Your task to perform on an android device: manage bookmarks in the chrome app Image 0: 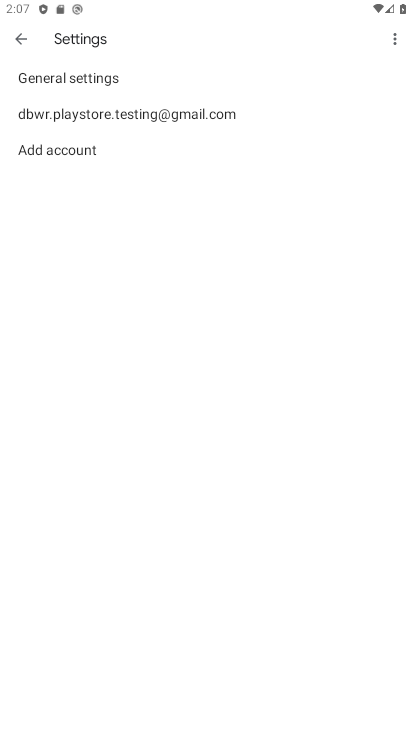
Step 0: drag from (208, 616) to (161, 83)
Your task to perform on an android device: manage bookmarks in the chrome app Image 1: 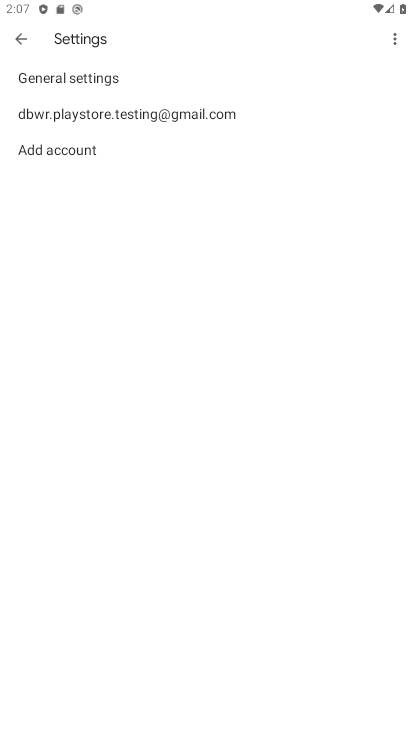
Step 1: drag from (282, 615) to (329, 153)
Your task to perform on an android device: manage bookmarks in the chrome app Image 2: 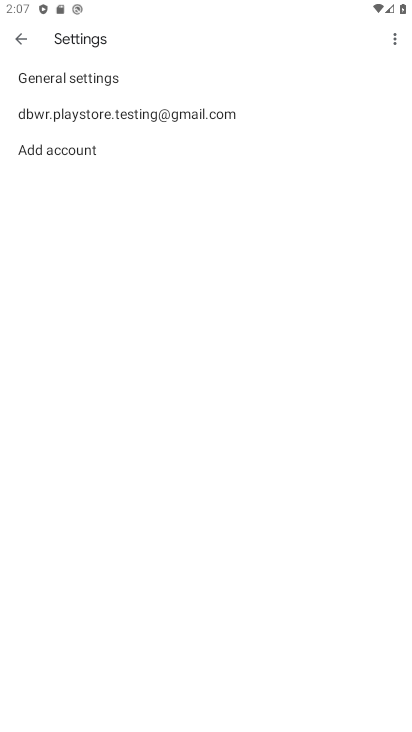
Step 2: click (99, 114)
Your task to perform on an android device: manage bookmarks in the chrome app Image 3: 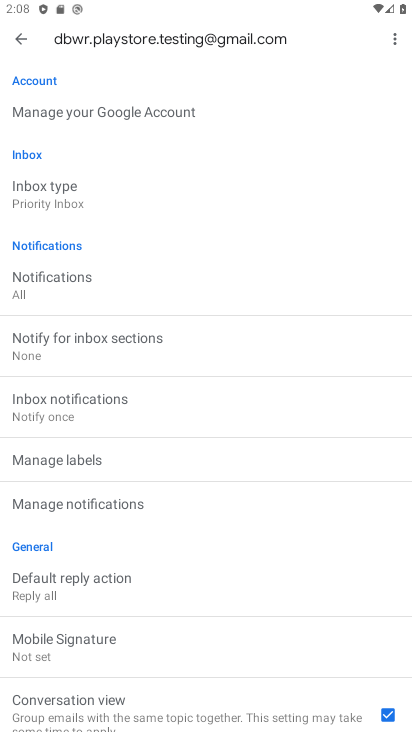
Step 3: press home button
Your task to perform on an android device: manage bookmarks in the chrome app Image 4: 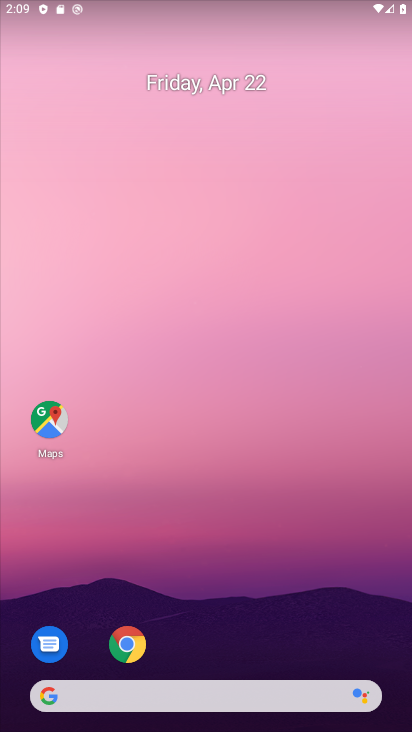
Step 4: click (135, 659)
Your task to perform on an android device: manage bookmarks in the chrome app Image 5: 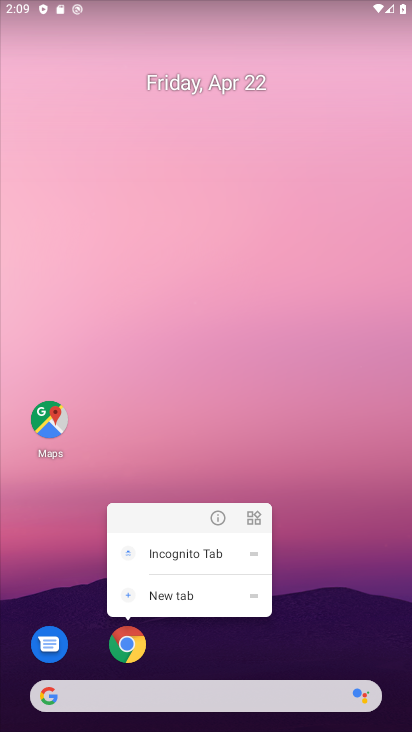
Step 5: click (121, 641)
Your task to perform on an android device: manage bookmarks in the chrome app Image 6: 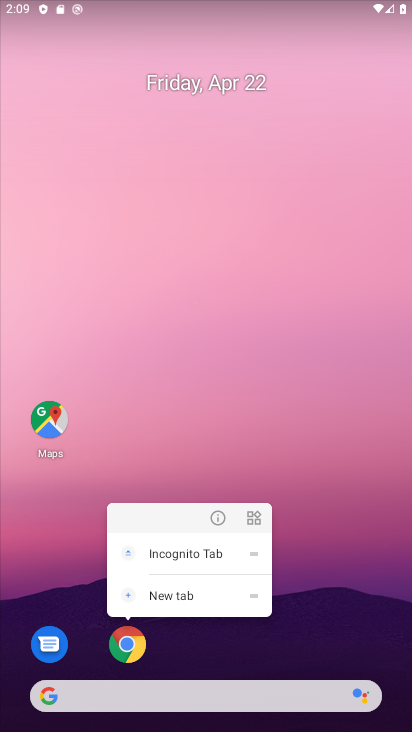
Step 6: click (128, 656)
Your task to perform on an android device: manage bookmarks in the chrome app Image 7: 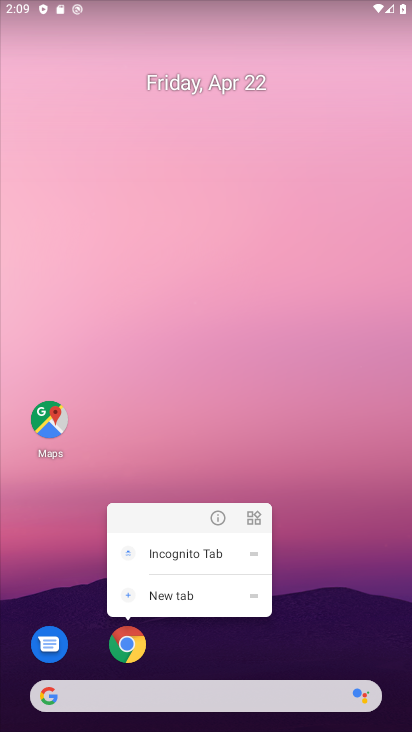
Step 7: click (128, 660)
Your task to perform on an android device: manage bookmarks in the chrome app Image 8: 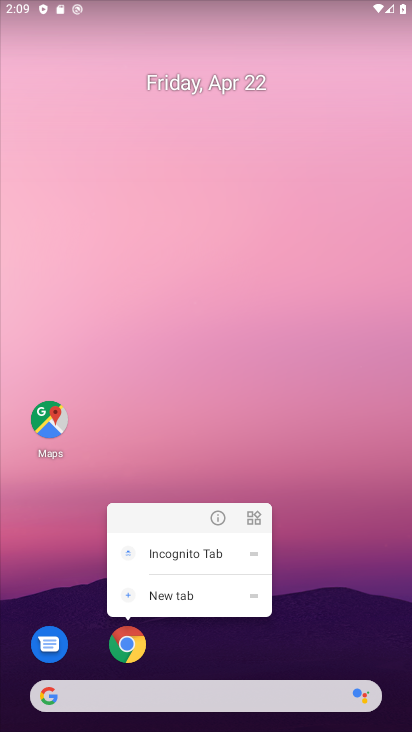
Step 8: click (121, 653)
Your task to perform on an android device: manage bookmarks in the chrome app Image 9: 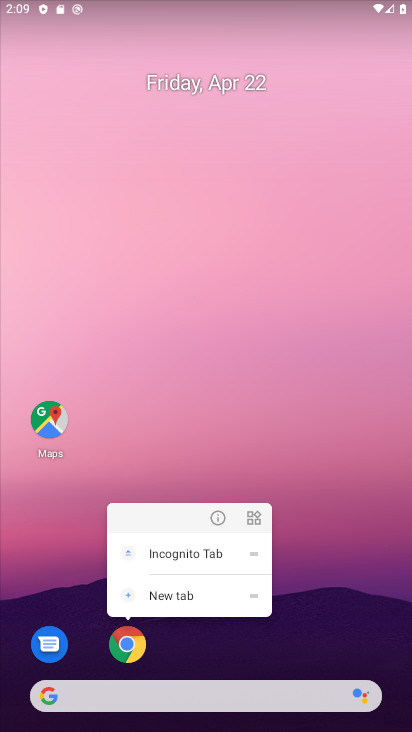
Step 9: click (131, 660)
Your task to perform on an android device: manage bookmarks in the chrome app Image 10: 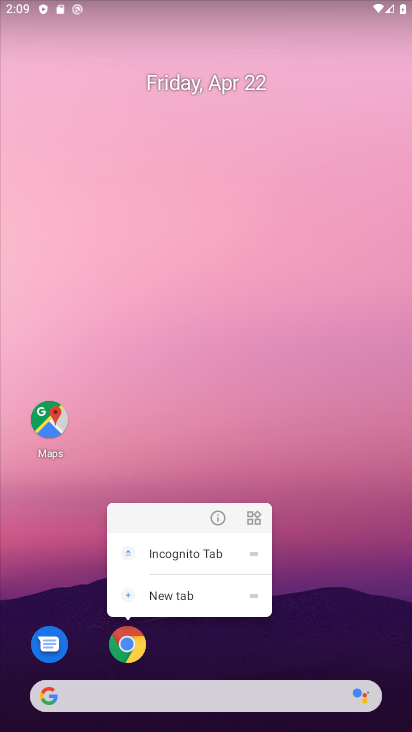
Step 10: click (131, 639)
Your task to perform on an android device: manage bookmarks in the chrome app Image 11: 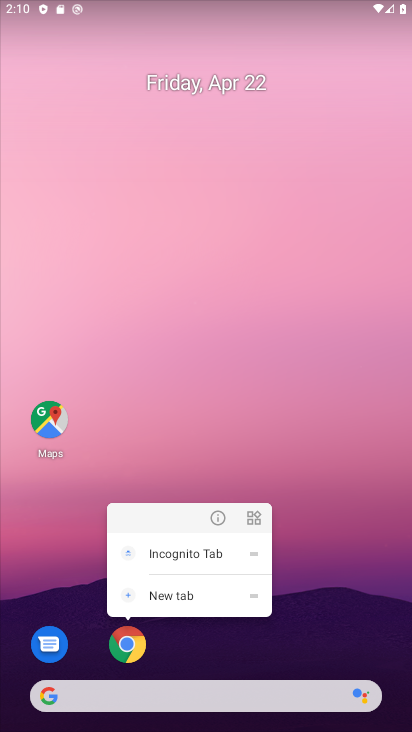
Step 11: click (125, 659)
Your task to perform on an android device: manage bookmarks in the chrome app Image 12: 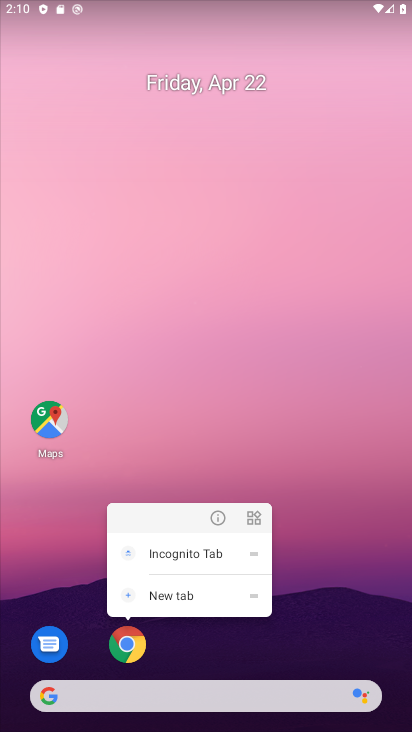
Step 12: click (127, 653)
Your task to perform on an android device: manage bookmarks in the chrome app Image 13: 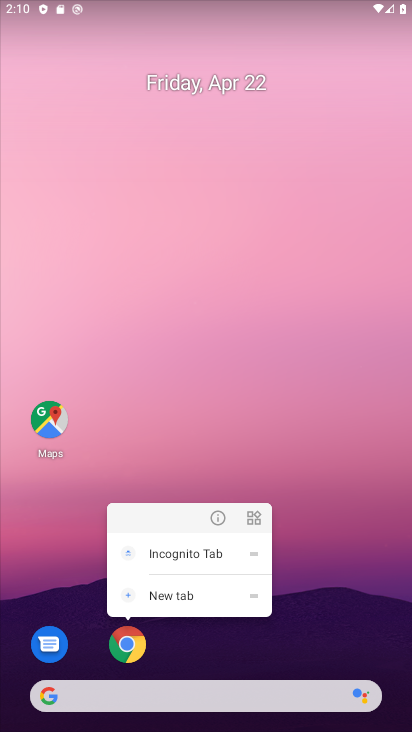
Step 13: click (128, 651)
Your task to perform on an android device: manage bookmarks in the chrome app Image 14: 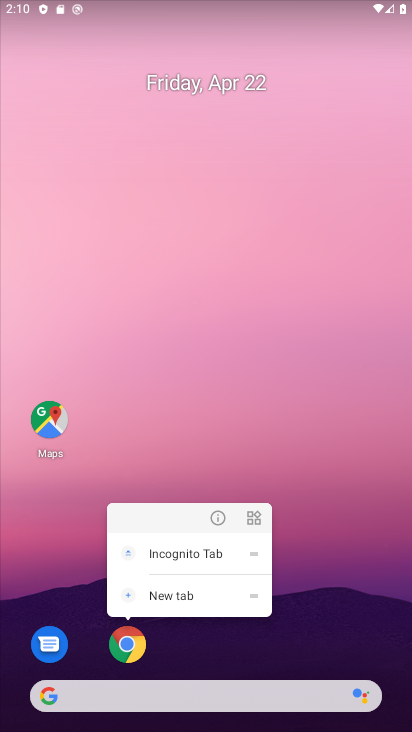
Step 14: click (129, 651)
Your task to perform on an android device: manage bookmarks in the chrome app Image 15: 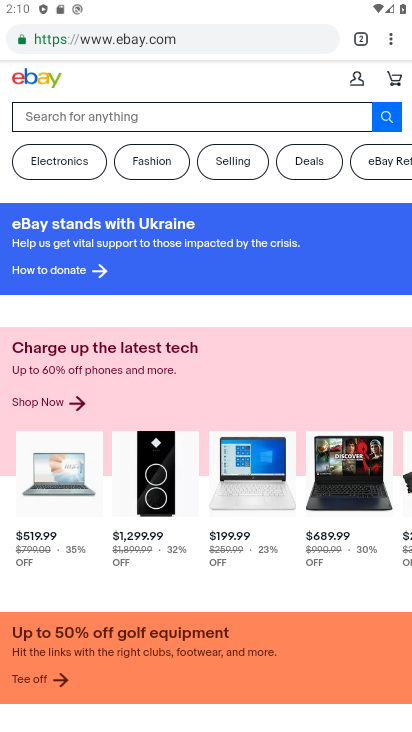
Step 15: click (388, 42)
Your task to perform on an android device: manage bookmarks in the chrome app Image 16: 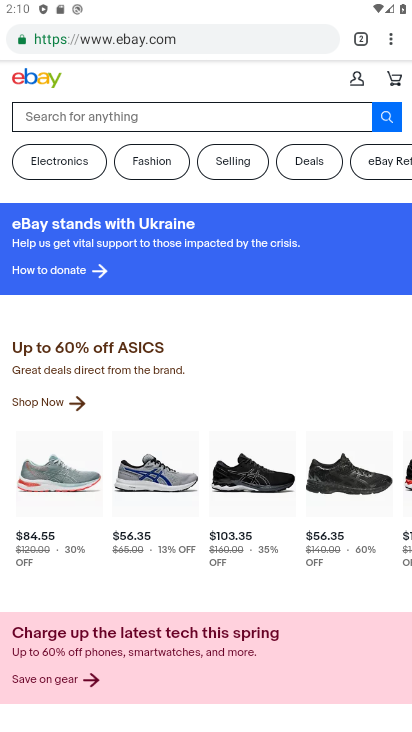
Step 16: click (389, 43)
Your task to perform on an android device: manage bookmarks in the chrome app Image 17: 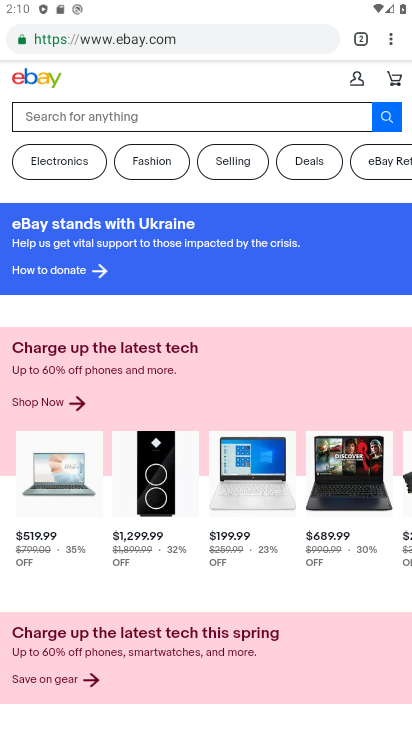
Step 17: click (392, 40)
Your task to perform on an android device: manage bookmarks in the chrome app Image 18: 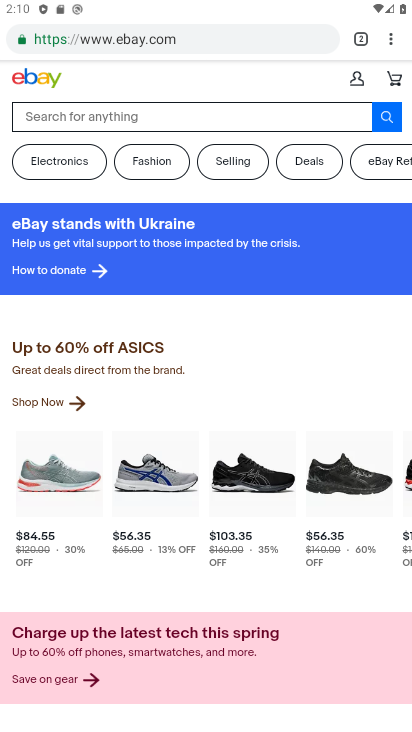
Step 18: click (392, 40)
Your task to perform on an android device: manage bookmarks in the chrome app Image 19: 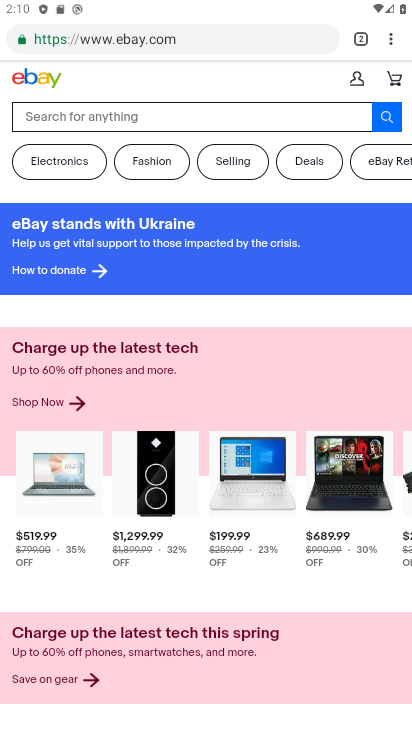
Step 19: click (392, 40)
Your task to perform on an android device: manage bookmarks in the chrome app Image 20: 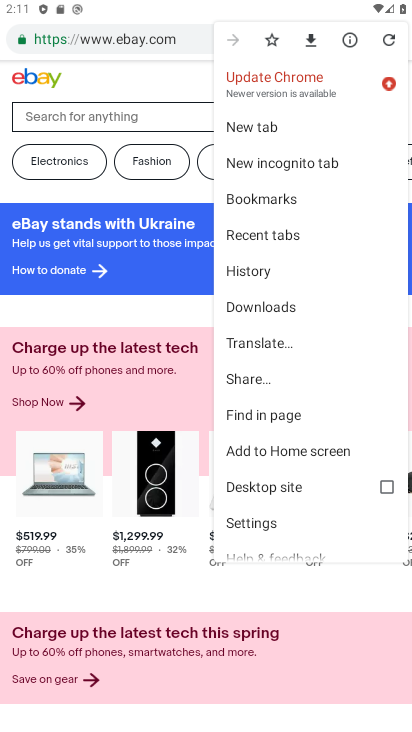
Step 20: click (280, 202)
Your task to perform on an android device: manage bookmarks in the chrome app Image 21: 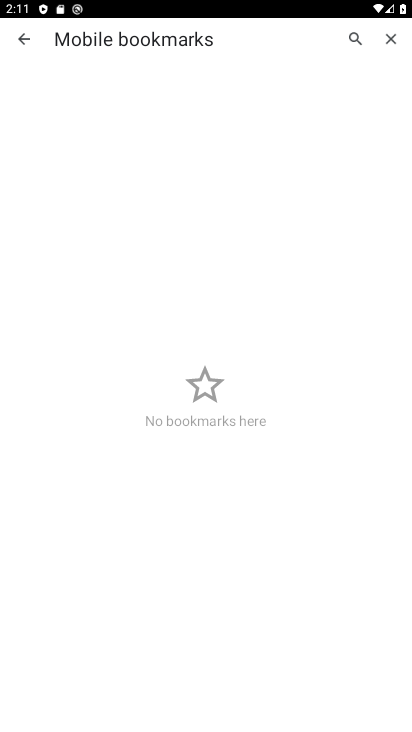
Step 21: task complete